Your task to perform on an android device: Search for Italian restaurants on Maps Image 0: 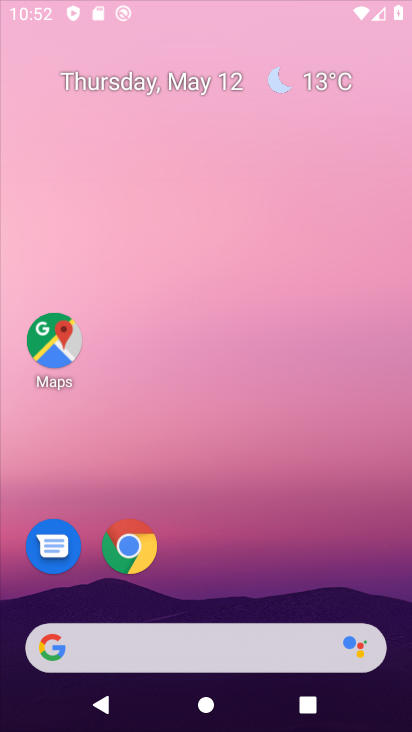
Step 0: press home button
Your task to perform on an android device: Search for Italian restaurants on Maps Image 1: 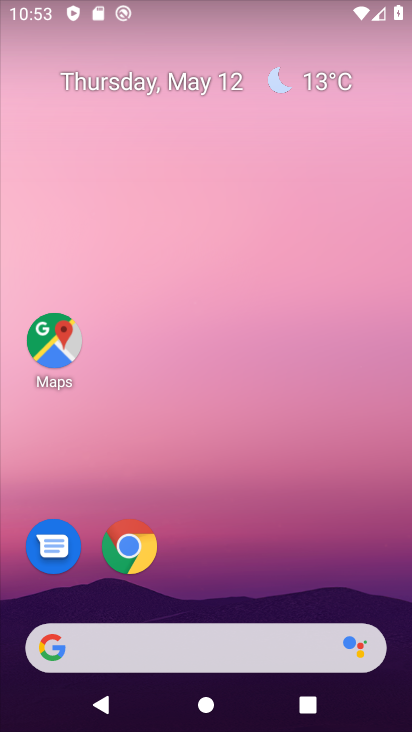
Step 1: drag from (240, 683) to (186, 236)
Your task to perform on an android device: Search for Italian restaurants on Maps Image 2: 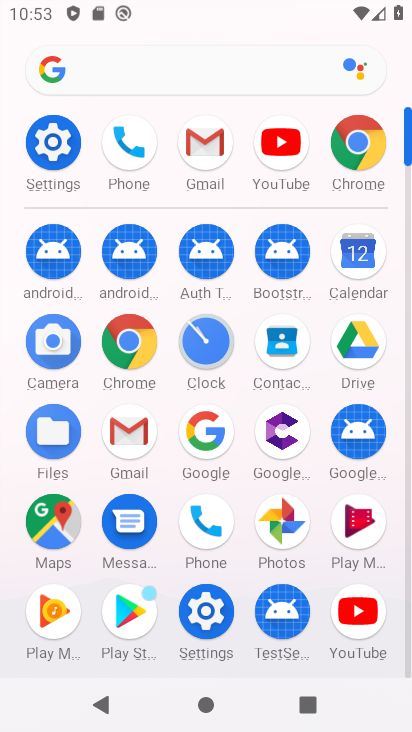
Step 2: click (68, 512)
Your task to perform on an android device: Search for Italian restaurants on Maps Image 3: 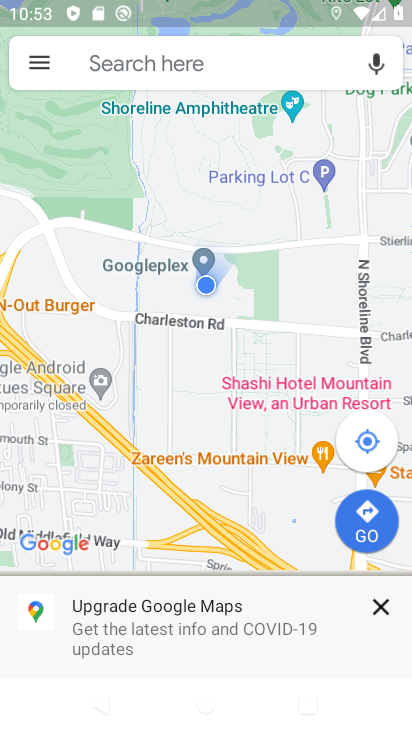
Step 3: click (381, 615)
Your task to perform on an android device: Search for Italian restaurants on Maps Image 4: 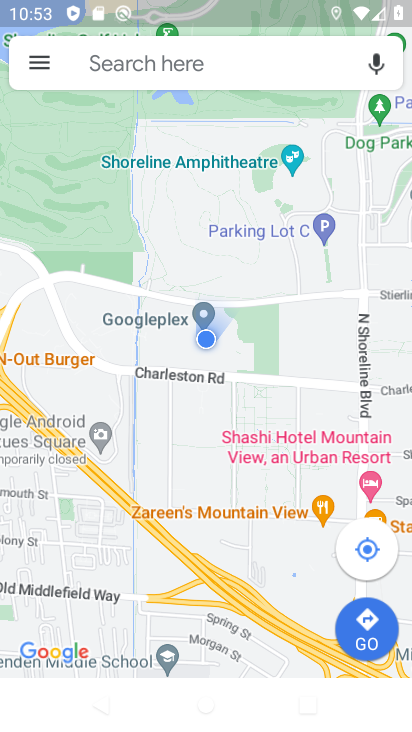
Step 4: click (177, 62)
Your task to perform on an android device: Search for Italian restaurants on Maps Image 5: 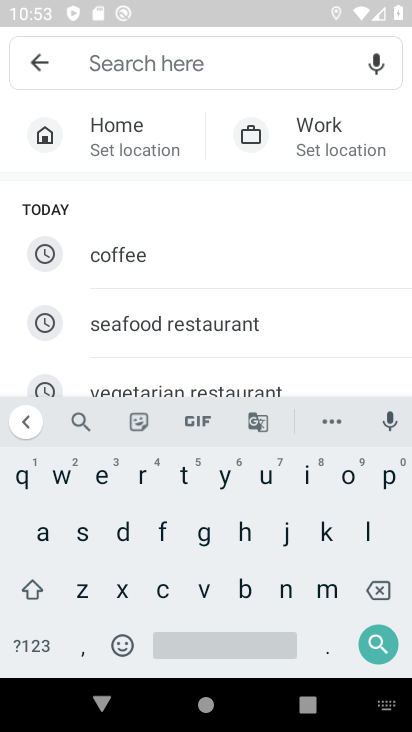
Step 5: click (309, 480)
Your task to perform on an android device: Search for Italian restaurants on Maps Image 6: 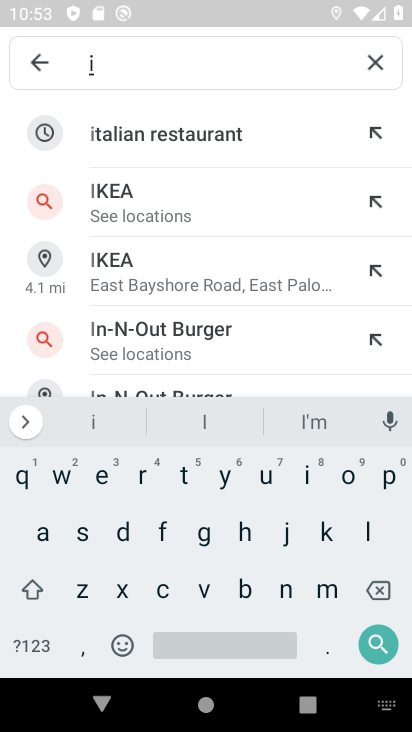
Step 6: click (128, 134)
Your task to perform on an android device: Search for Italian restaurants on Maps Image 7: 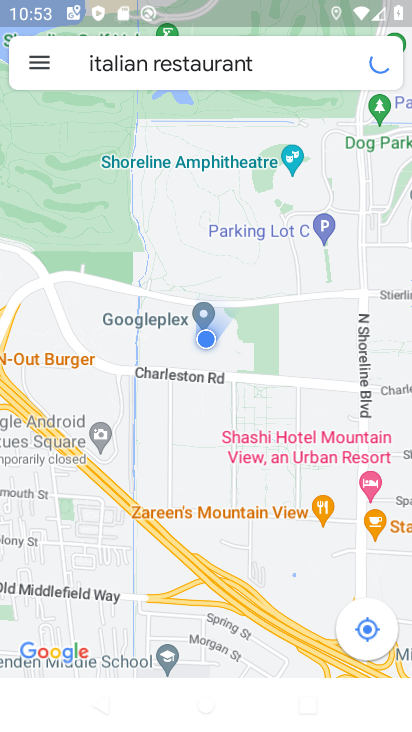
Step 7: task complete